Your task to perform on an android device: turn smart compose on in the gmail app Image 0: 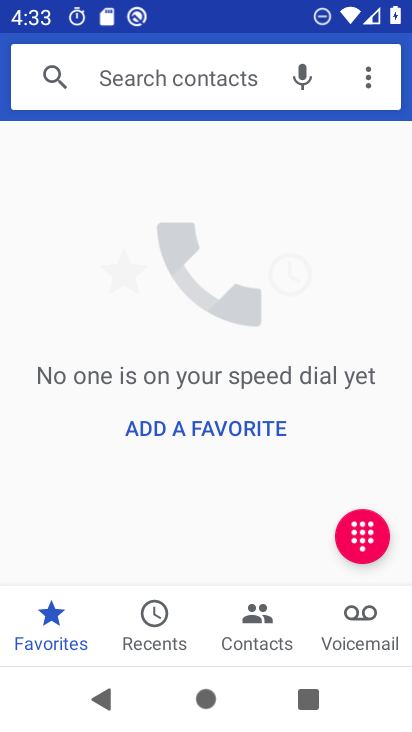
Step 0: press back button
Your task to perform on an android device: turn smart compose on in the gmail app Image 1: 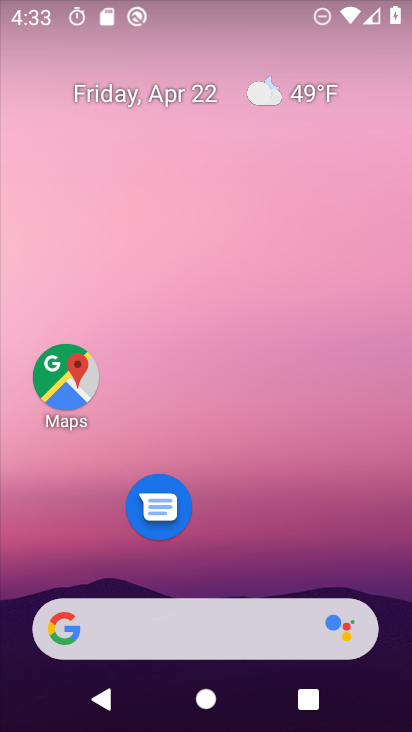
Step 1: drag from (188, 558) to (308, 93)
Your task to perform on an android device: turn smart compose on in the gmail app Image 2: 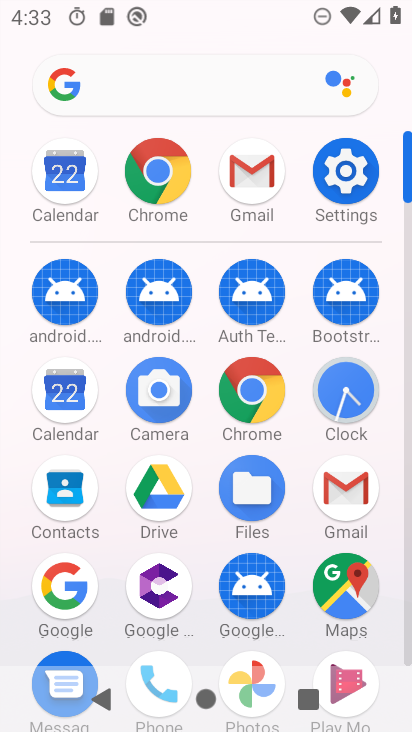
Step 2: click (247, 175)
Your task to perform on an android device: turn smart compose on in the gmail app Image 3: 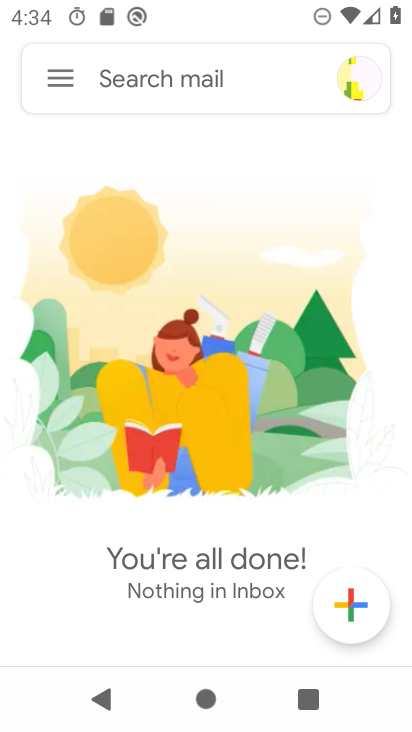
Step 3: click (63, 83)
Your task to perform on an android device: turn smart compose on in the gmail app Image 4: 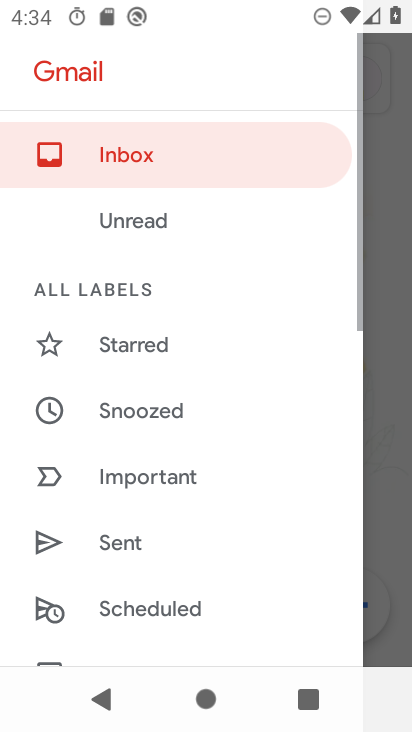
Step 4: drag from (142, 563) to (270, 117)
Your task to perform on an android device: turn smart compose on in the gmail app Image 5: 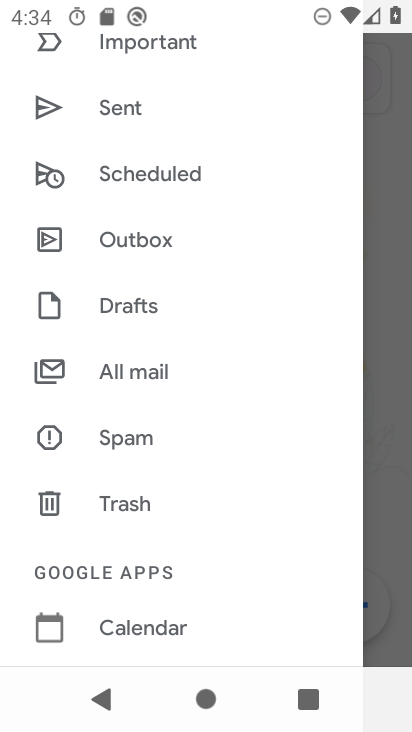
Step 5: drag from (159, 617) to (294, 129)
Your task to perform on an android device: turn smart compose on in the gmail app Image 6: 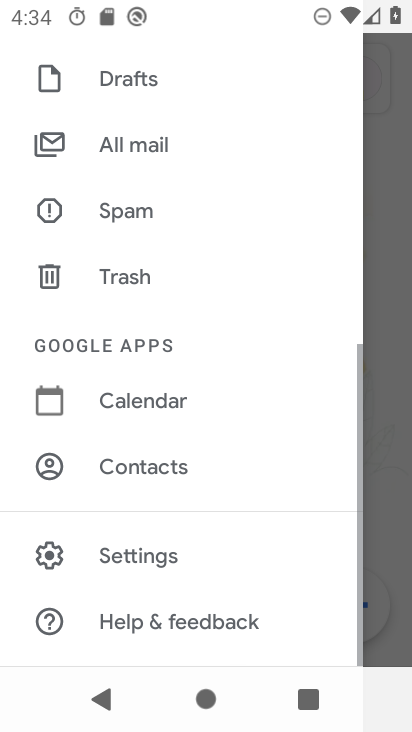
Step 6: click (128, 552)
Your task to perform on an android device: turn smart compose on in the gmail app Image 7: 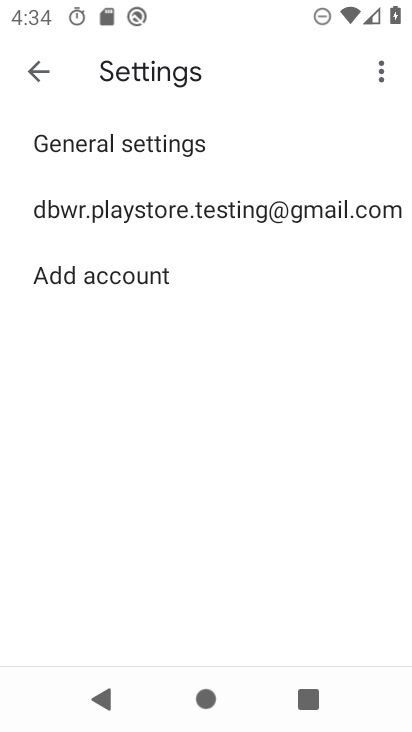
Step 7: click (162, 214)
Your task to perform on an android device: turn smart compose on in the gmail app Image 8: 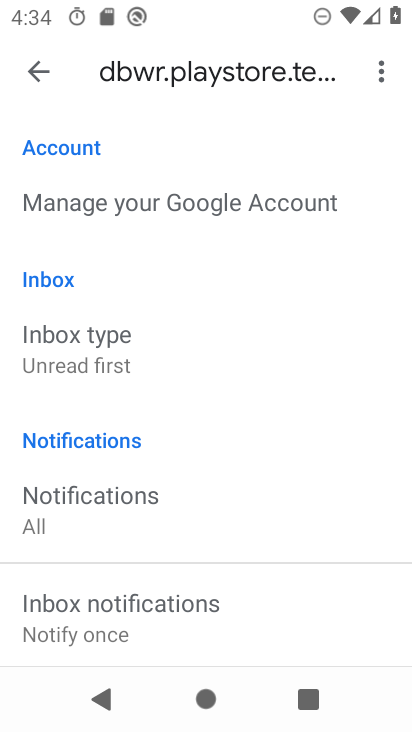
Step 8: task complete